Your task to perform on an android device: change notifications settings Image 0: 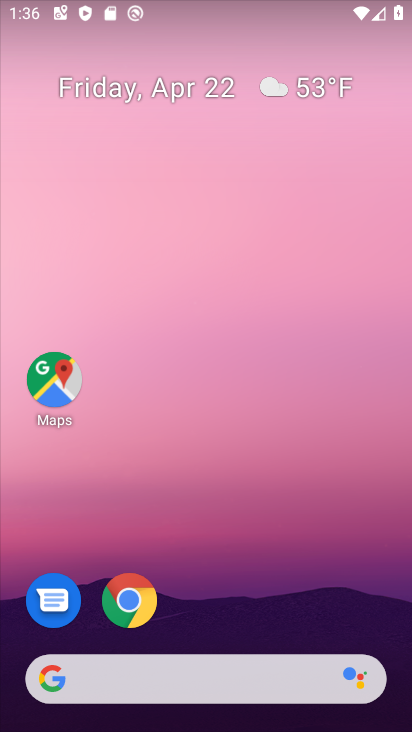
Step 0: drag from (210, 721) to (184, 78)
Your task to perform on an android device: change notifications settings Image 1: 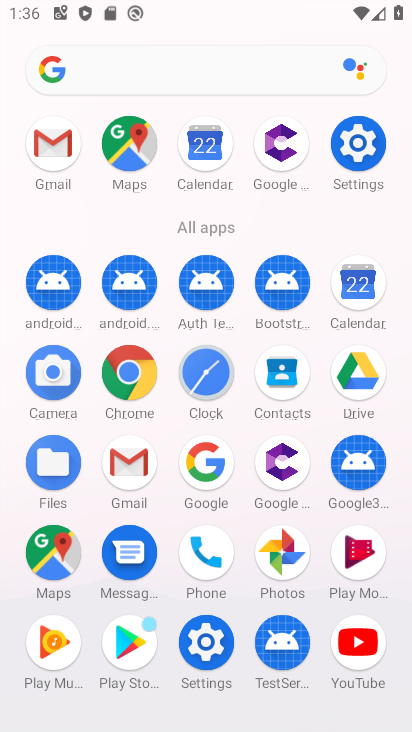
Step 1: click (214, 638)
Your task to perform on an android device: change notifications settings Image 2: 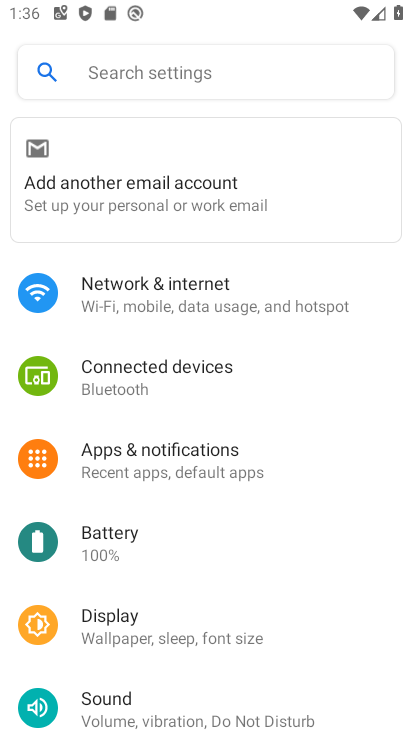
Step 2: click (158, 466)
Your task to perform on an android device: change notifications settings Image 3: 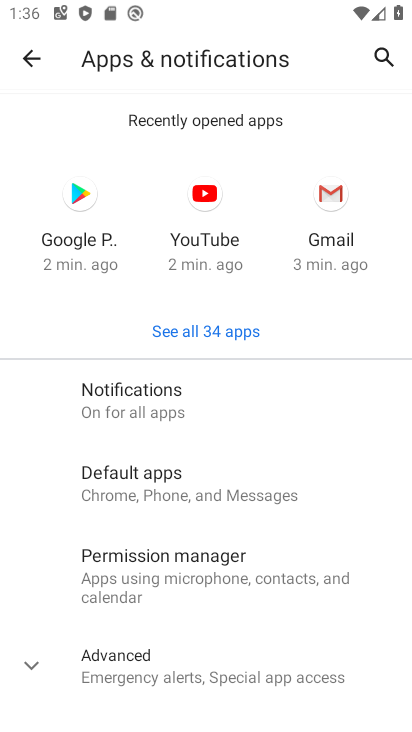
Step 3: click (135, 406)
Your task to perform on an android device: change notifications settings Image 4: 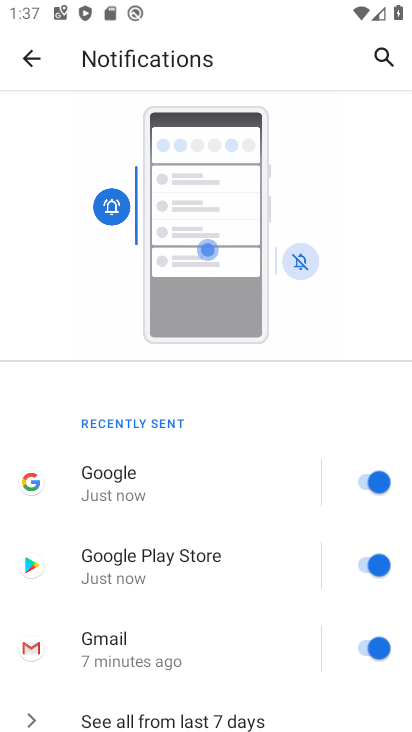
Step 4: drag from (199, 654) to (199, 263)
Your task to perform on an android device: change notifications settings Image 5: 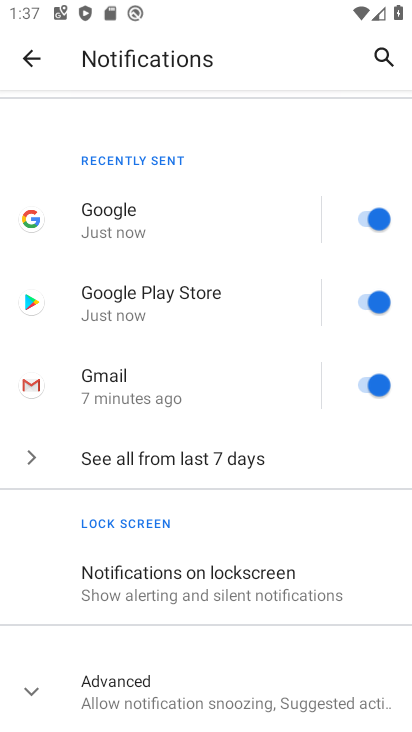
Step 5: click (128, 683)
Your task to perform on an android device: change notifications settings Image 6: 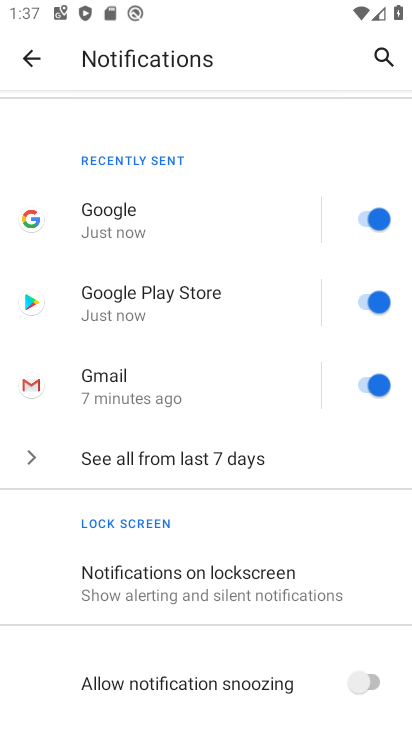
Step 6: click (371, 679)
Your task to perform on an android device: change notifications settings Image 7: 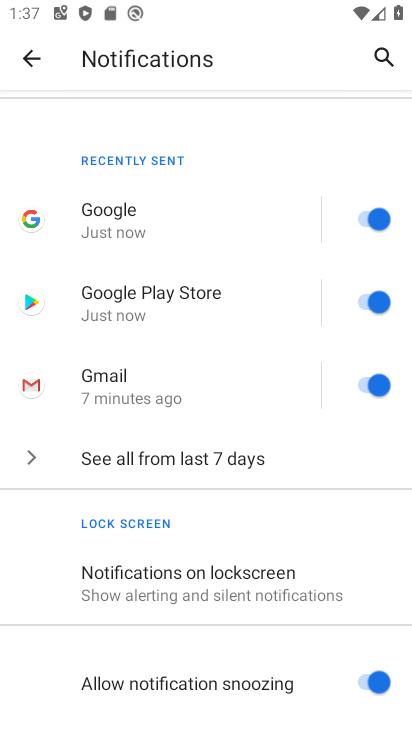
Step 7: task complete